Your task to perform on an android device: Open Chrome and go to the settings page Image 0: 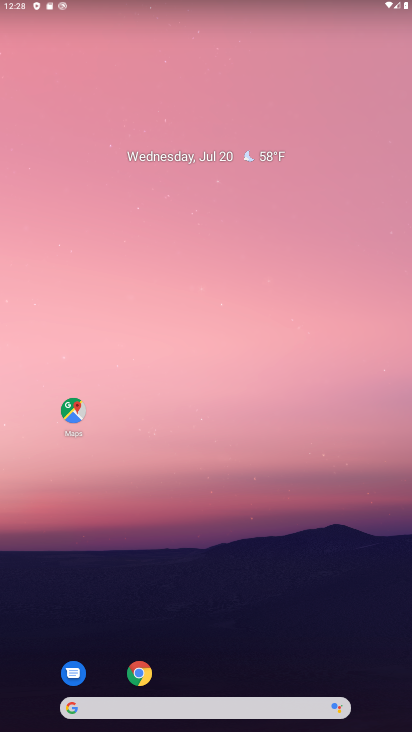
Step 0: click (143, 672)
Your task to perform on an android device: Open Chrome and go to the settings page Image 1: 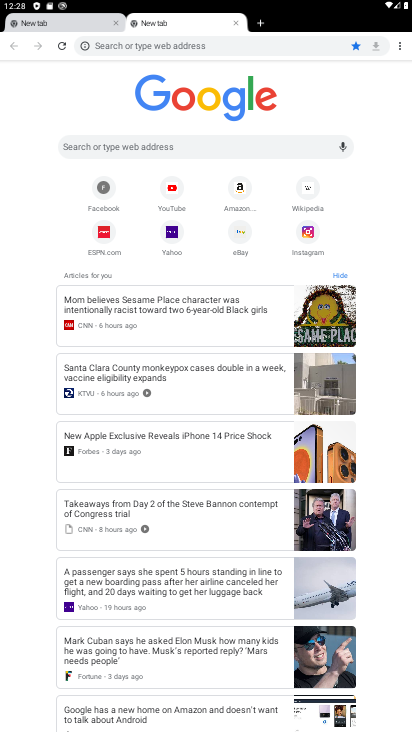
Step 1: click (398, 50)
Your task to perform on an android device: Open Chrome and go to the settings page Image 2: 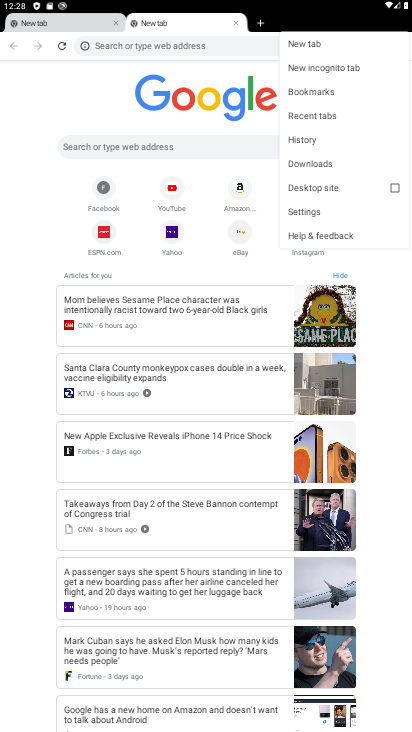
Step 2: click (317, 213)
Your task to perform on an android device: Open Chrome and go to the settings page Image 3: 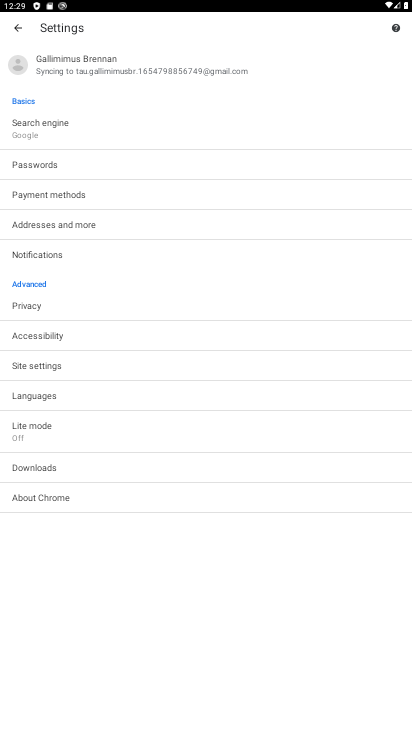
Step 3: task complete